Your task to perform on an android device: Check the news Image 0: 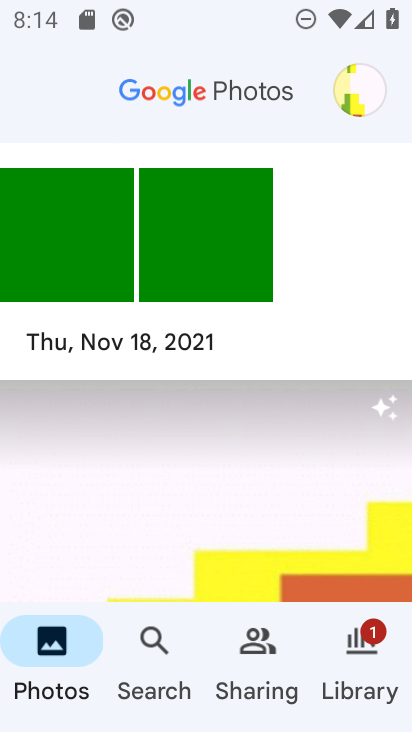
Step 0: press back button
Your task to perform on an android device: Check the news Image 1: 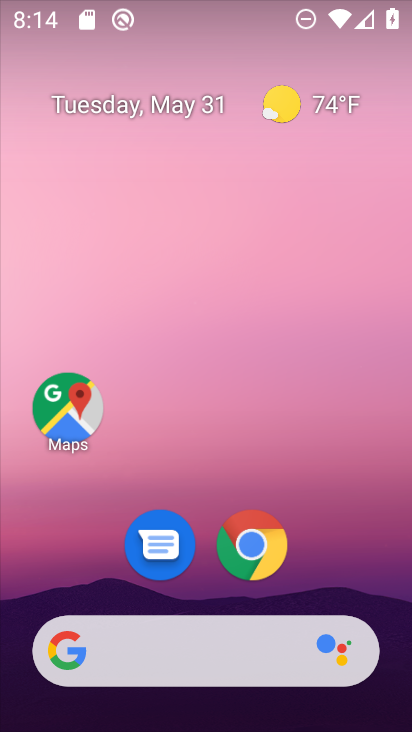
Step 1: drag from (318, 515) to (247, 43)
Your task to perform on an android device: Check the news Image 2: 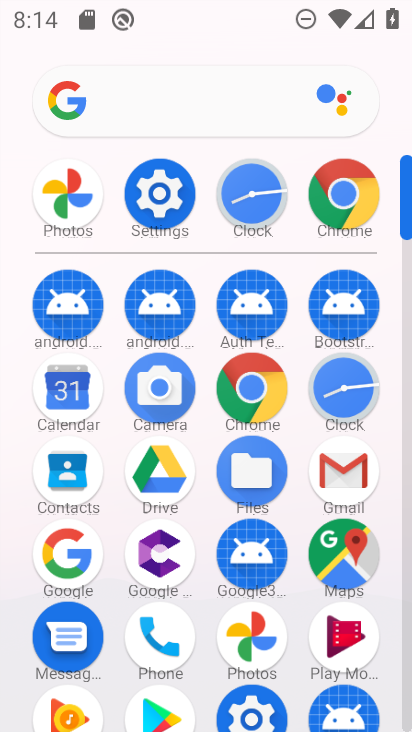
Step 2: click (342, 190)
Your task to perform on an android device: Check the news Image 3: 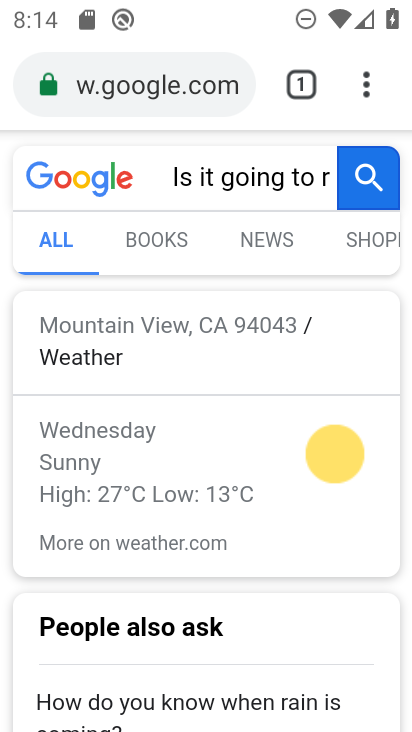
Step 3: click (109, 80)
Your task to perform on an android device: Check the news Image 4: 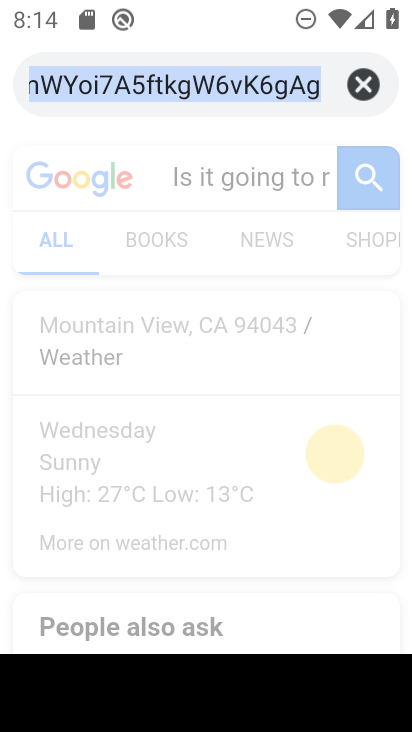
Step 4: click (356, 85)
Your task to perform on an android device: Check the news Image 5: 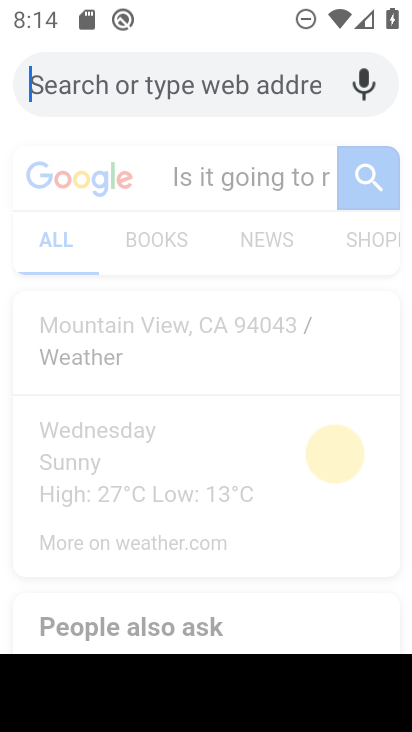
Step 5: type "Check the news"
Your task to perform on an android device: Check the news Image 6: 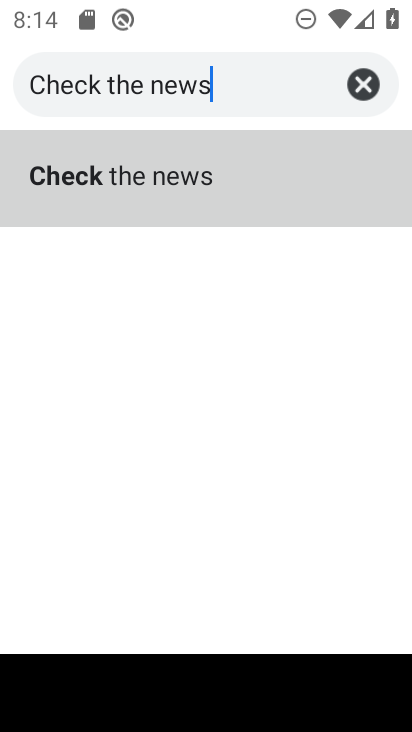
Step 6: click (217, 170)
Your task to perform on an android device: Check the news Image 7: 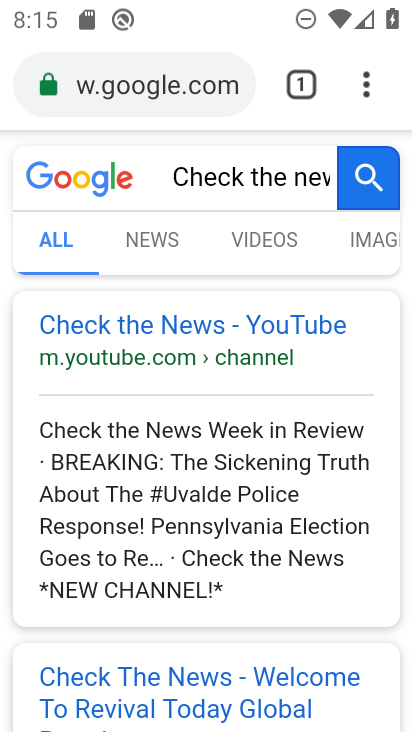
Step 7: drag from (188, 626) to (218, 257)
Your task to perform on an android device: Check the news Image 8: 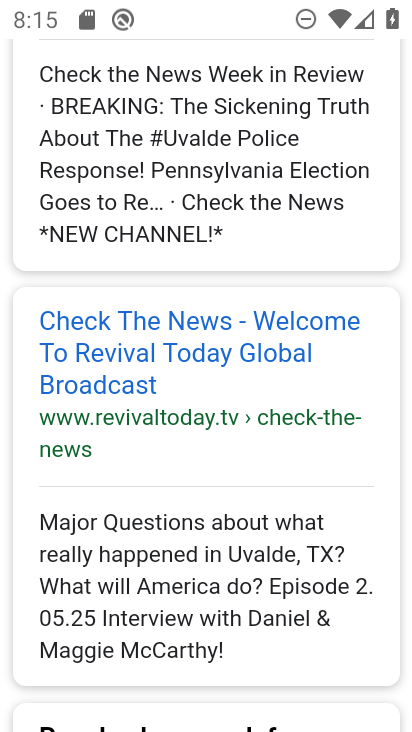
Step 8: drag from (248, 180) to (254, 596)
Your task to perform on an android device: Check the news Image 9: 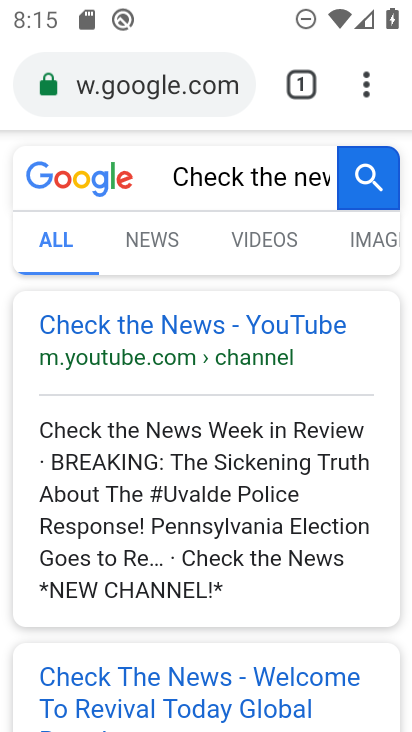
Step 9: click (156, 220)
Your task to perform on an android device: Check the news Image 10: 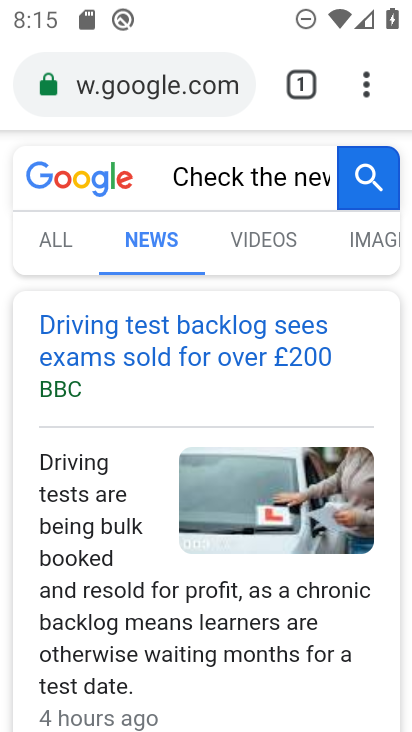
Step 10: task complete